Your task to perform on an android device: turn off airplane mode Image 0: 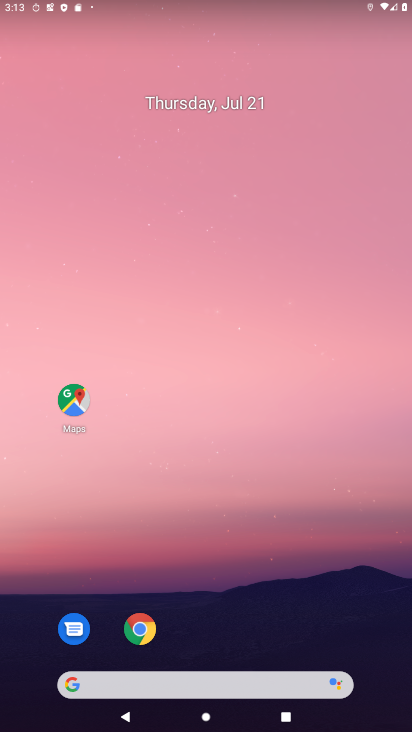
Step 0: drag from (199, 642) to (224, 61)
Your task to perform on an android device: turn off airplane mode Image 1: 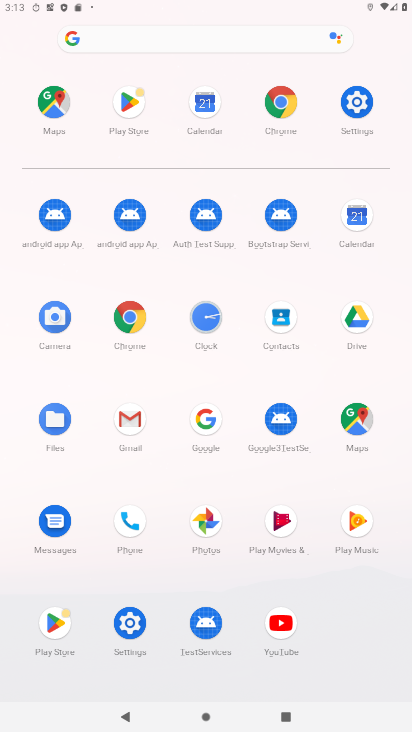
Step 1: click (132, 638)
Your task to perform on an android device: turn off airplane mode Image 2: 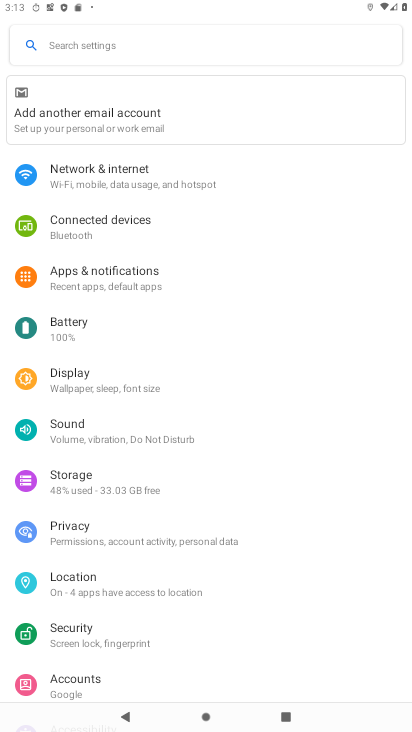
Step 2: click (145, 177)
Your task to perform on an android device: turn off airplane mode Image 3: 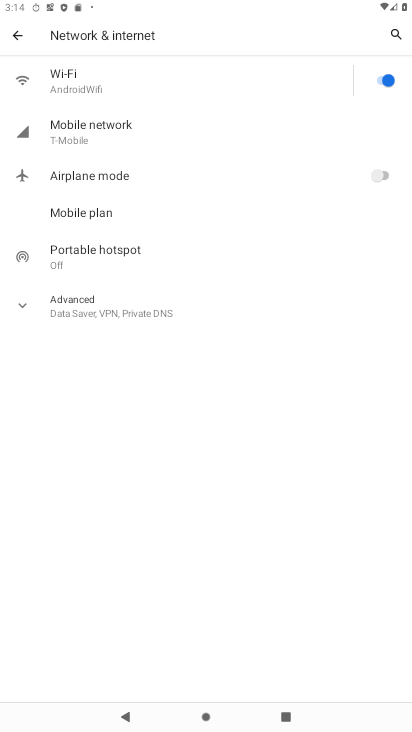
Step 3: task complete